Your task to perform on an android device: Turn on the flashlight Image 0: 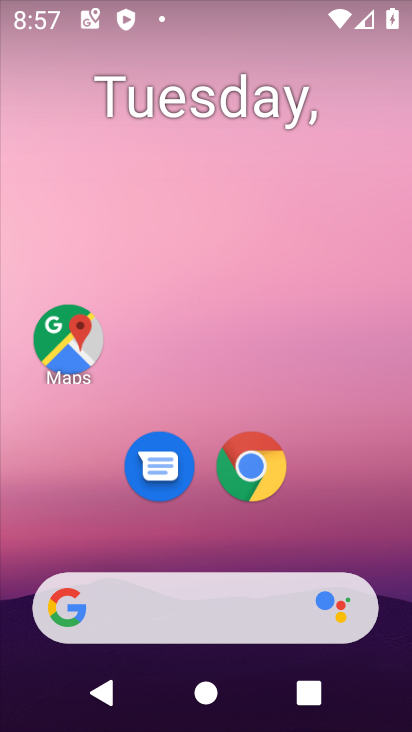
Step 0: drag from (376, 533) to (354, 29)
Your task to perform on an android device: Turn on the flashlight Image 1: 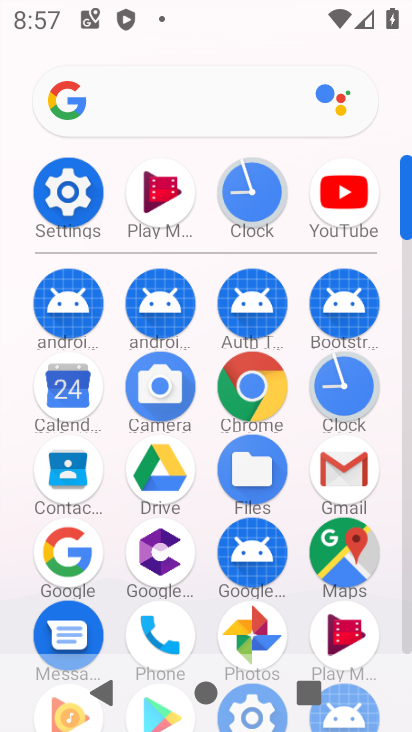
Step 1: click (57, 224)
Your task to perform on an android device: Turn on the flashlight Image 2: 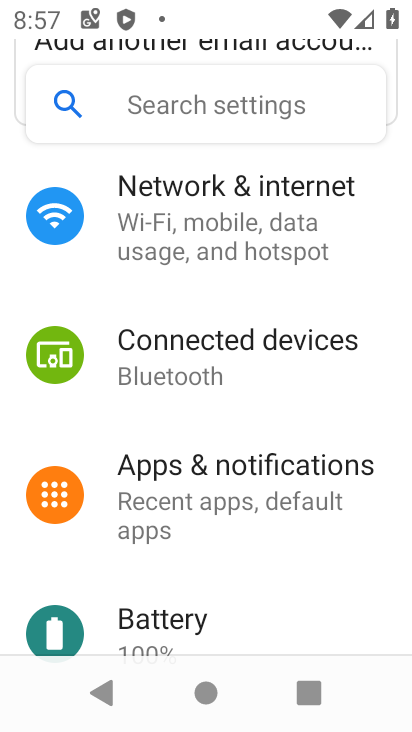
Step 2: click (241, 310)
Your task to perform on an android device: Turn on the flashlight Image 3: 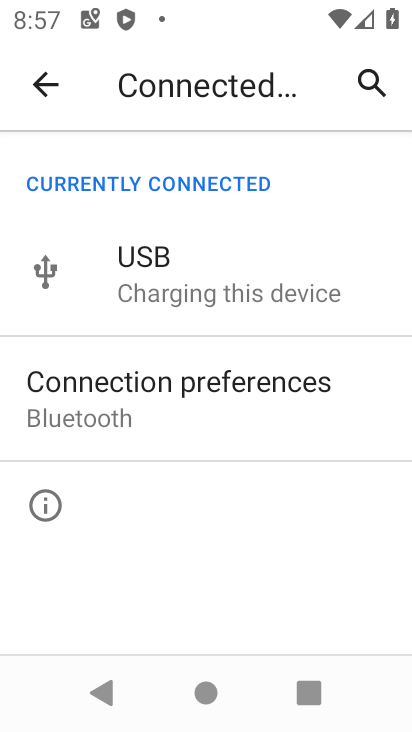
Step 3: task complete